Your task to perform on an android device: turn vacation reply on in the gmail app Image 0: 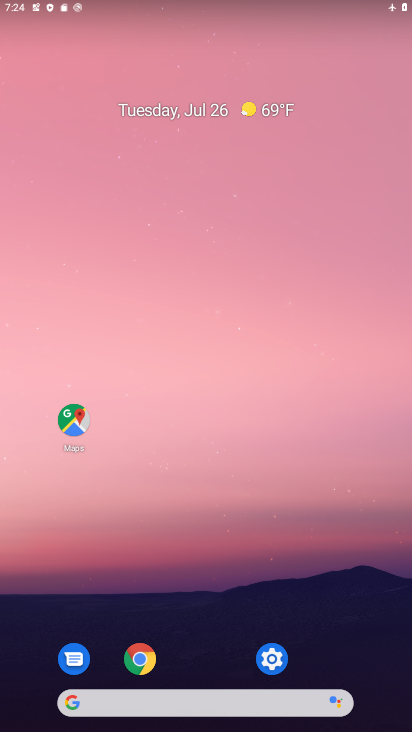
Step 0: drag from (235, 719) to (176, 70)
Your task to perform on an android device: turn vacation reply on in the gmail app Image 1: 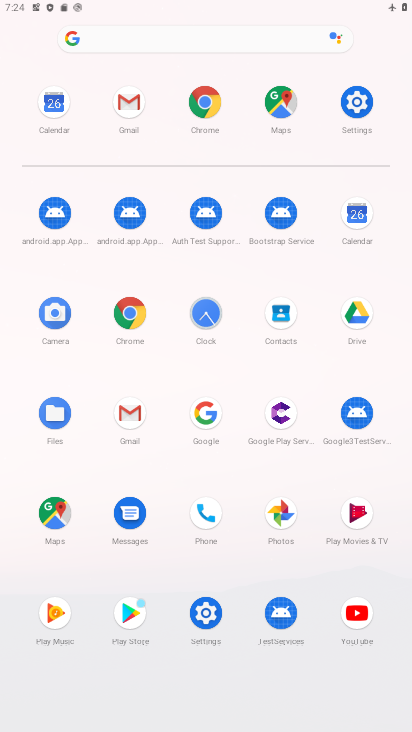
Step 1: drag from (130, 413) to (191, 667)
Your task to perform on an android device: turn vacation reply on in the gmail app Image 2: 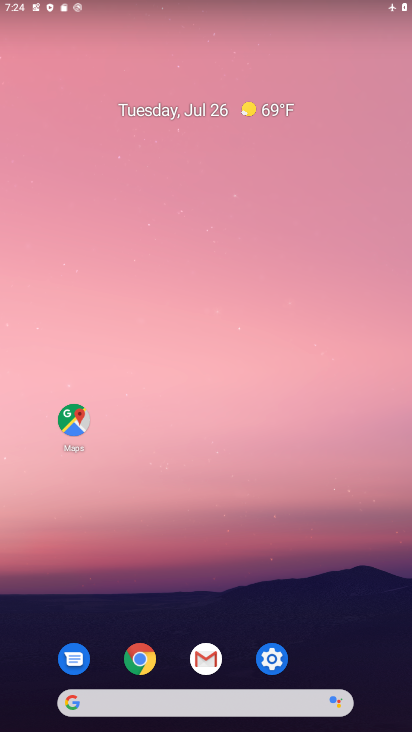
Step 2: click (210, 658)
Your task to perform on an android device: turn vacation reply on in the gmail app Image 3: 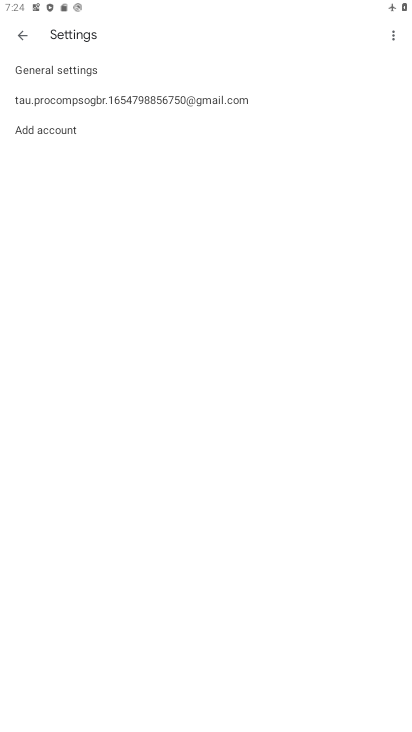
Step 3: click (95, 103)
Your task to perform on an android device: turn vacation reply on in the gmail app Image 4: 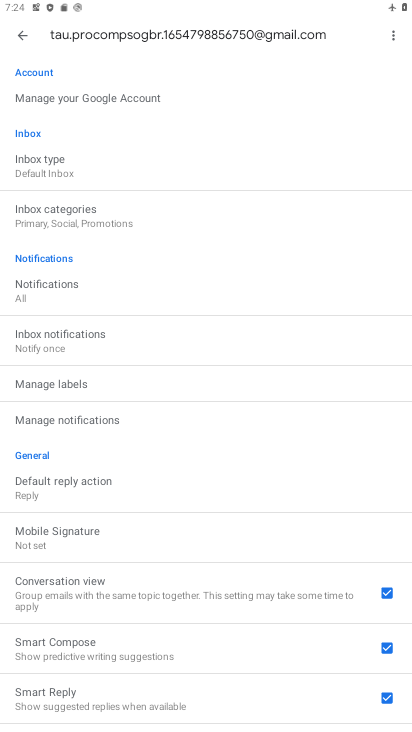
Step 4: drag from (158, 565) to (167, 253)
Your task to perform on an android device: turn vacation reply on in the gmail app Image 5: 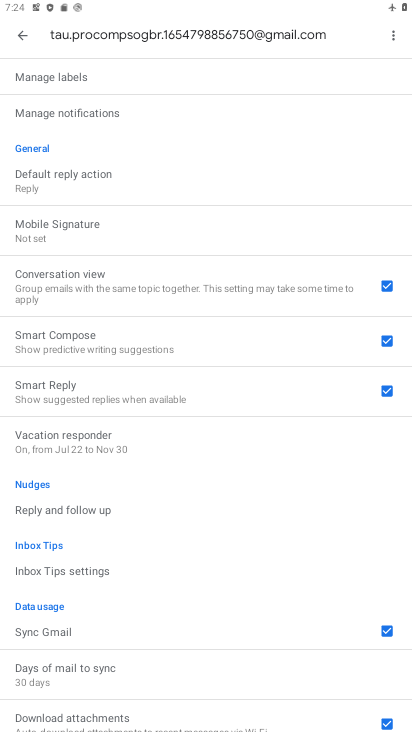
Step 5: drag from (186, 570) to (207, 456)
Your task to perform on an android device: turn vacation reply on in the gmail app Image 6: 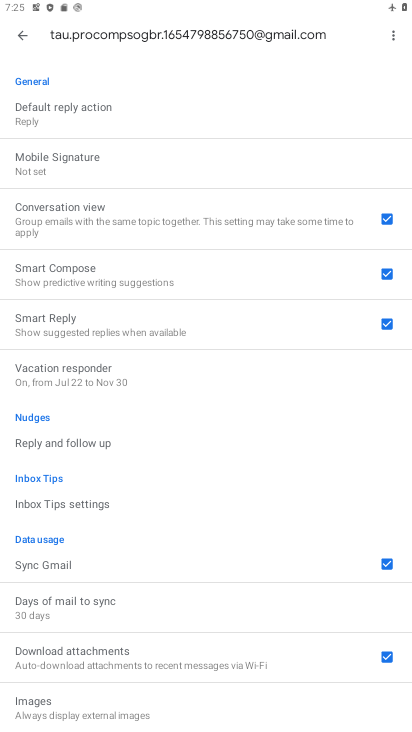
Step 6: click (122, 333)
Your task to perform on an android device: turn vacation reply on in the gmail app Image 7: 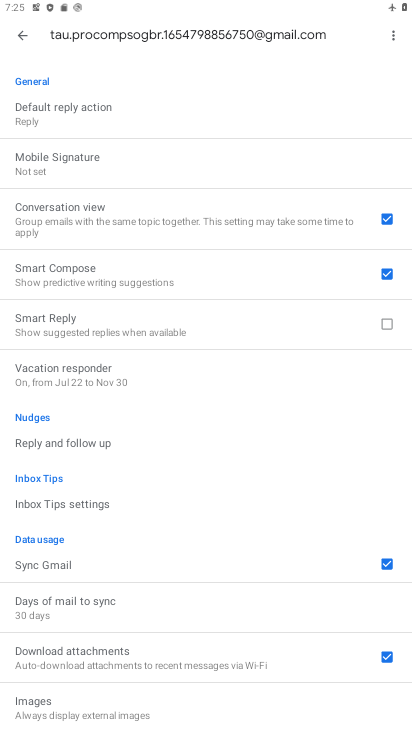
Step 7: click (122, 333)
Your task to perform on an android device: turn vacation reply on in the gmail app Image 8: 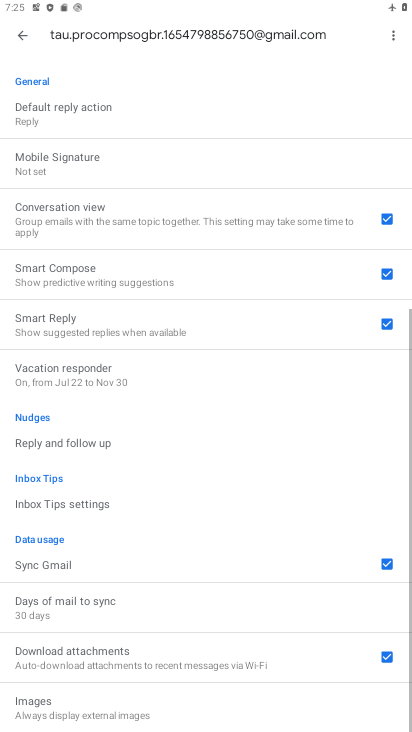
Step 8: task complete